Your task to perform on an android device: Search for the best selling coffee table on Crate & Barrel Image 0: 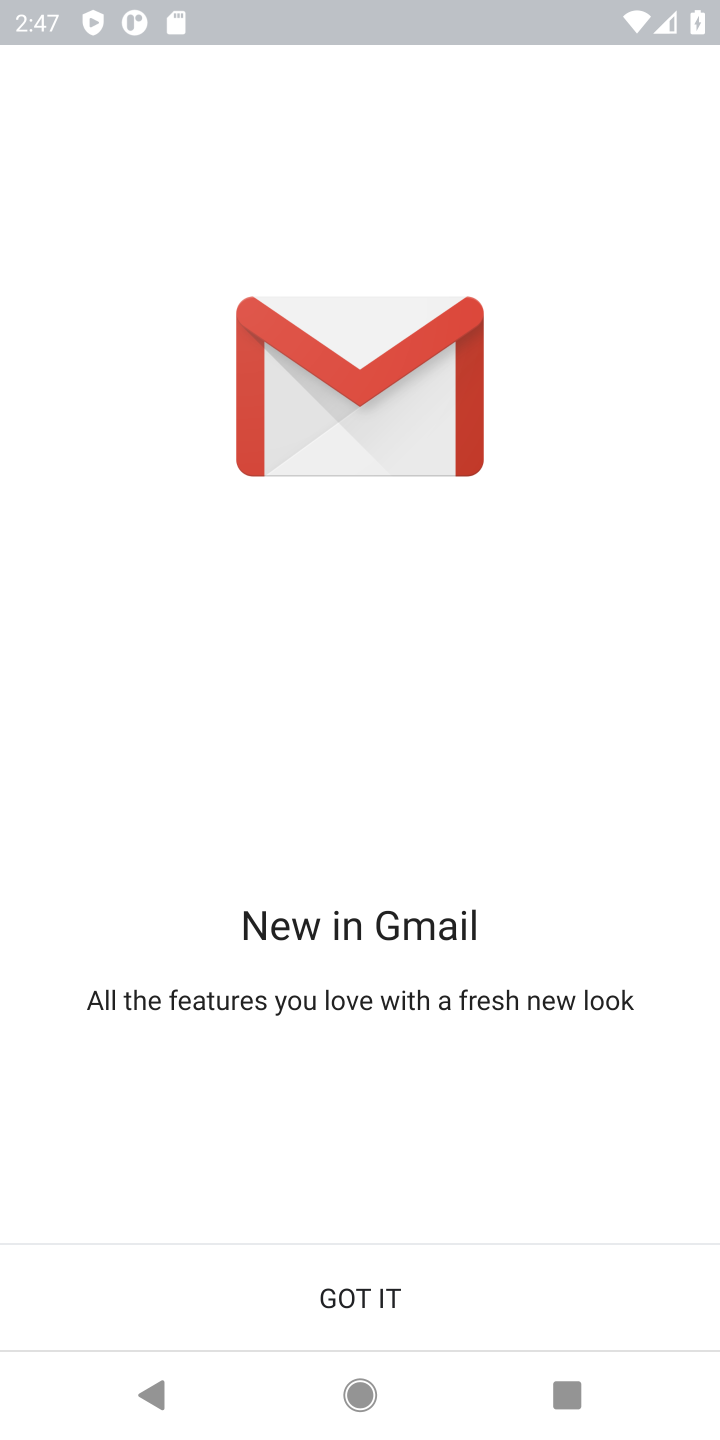
Step 0: press home button
Your task to perform on an android device: Search for the best selling coffee table on Crate & Barrel Image 1: 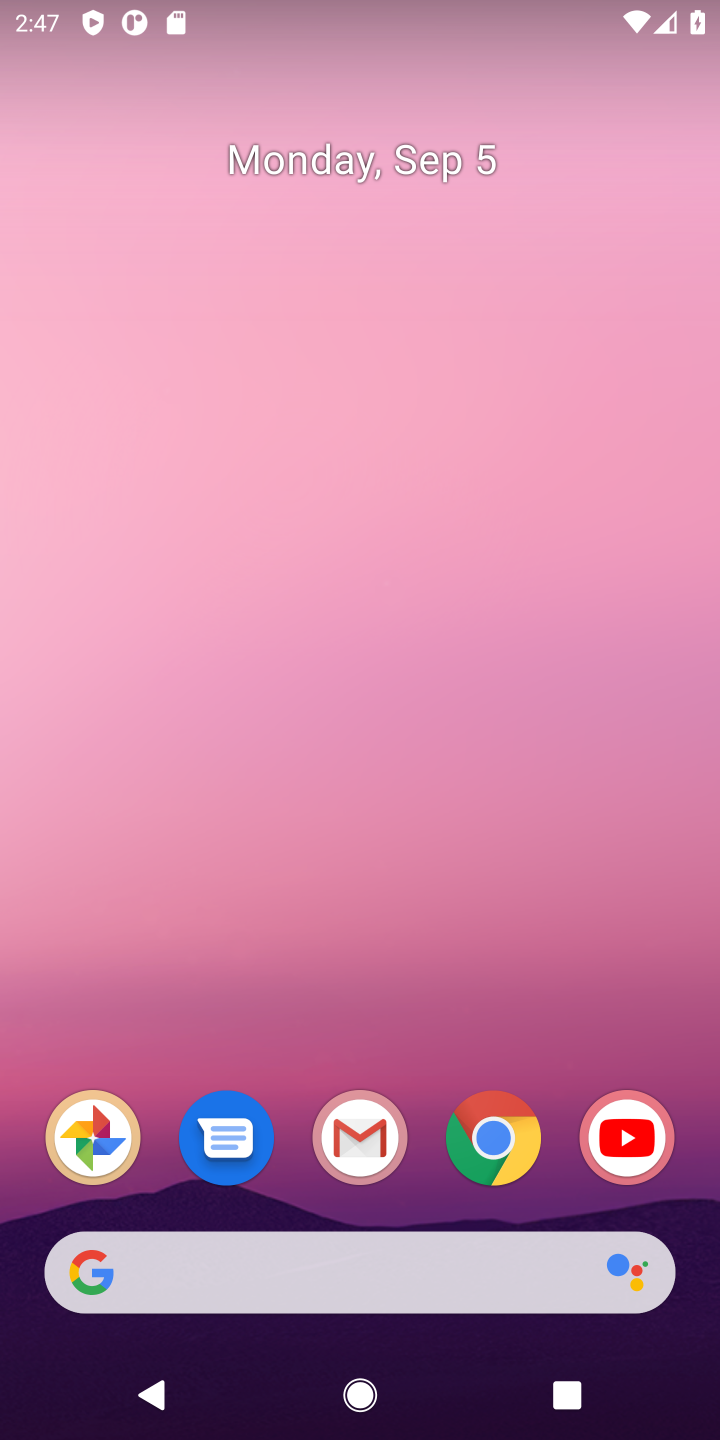
Step 1: click (515, 1144)
Your task to perform on an android device: Search for the best selling coffee table on Crate & Barrel Image 2: 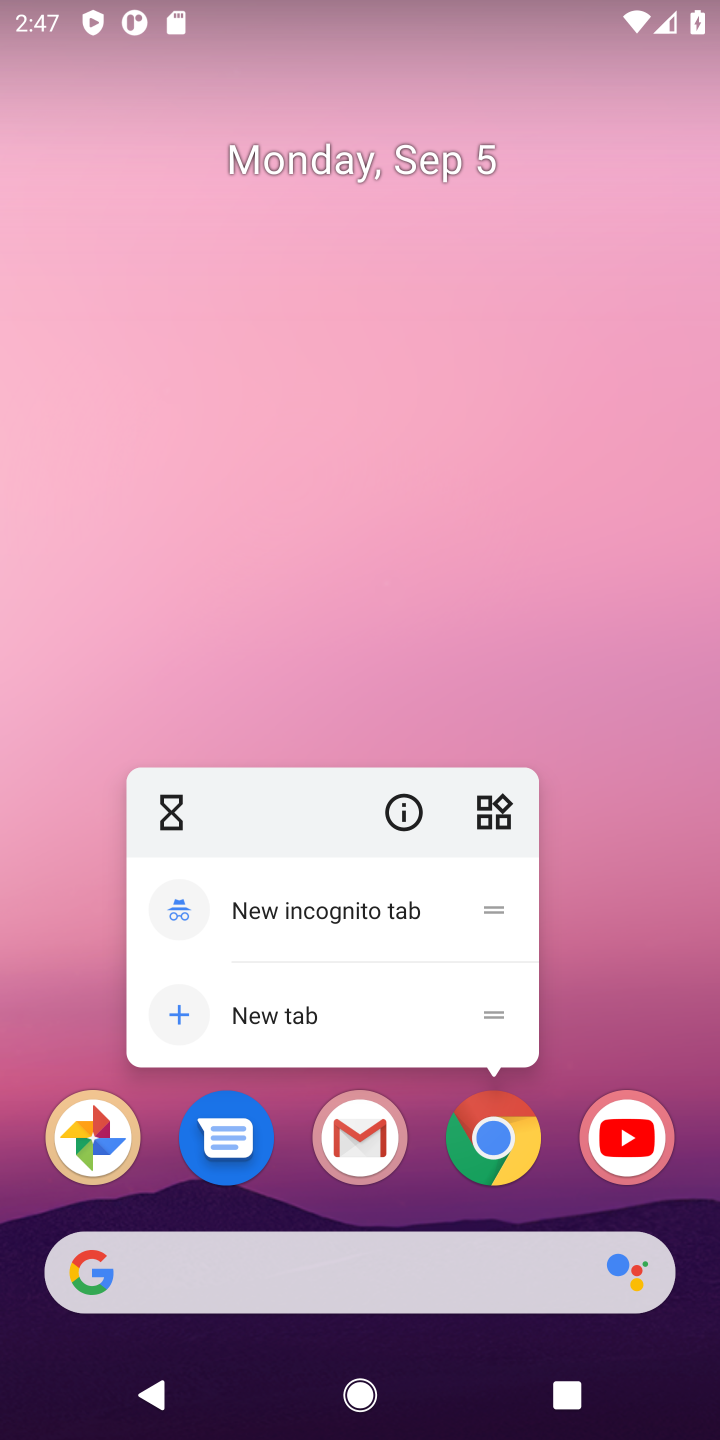
Step 2: click (503, 1149)
Your task to perform on an android device: Search for the best selling coffee table on Crate & Barrel Image 3: 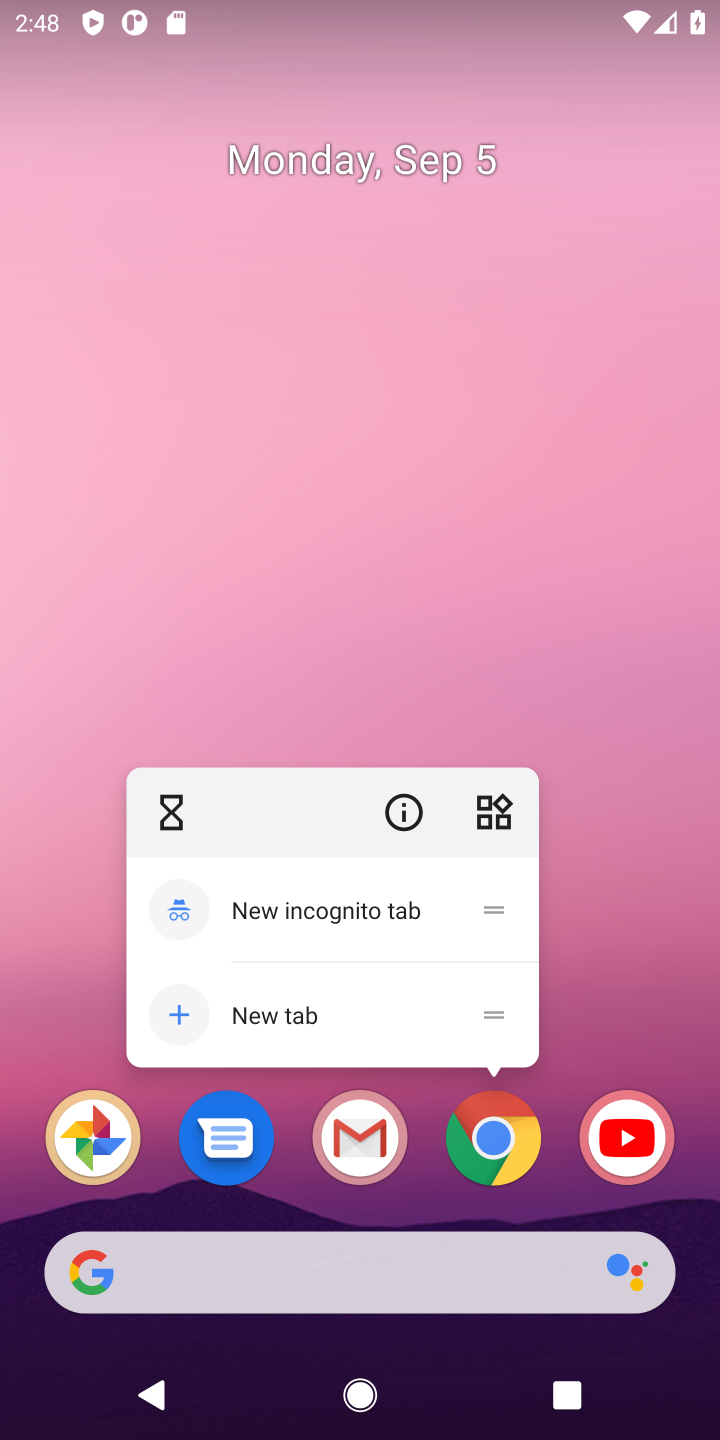
Step 3: click (490, 1151)
Your task to perform on an android device: Search for the best selling coffee table on Crate & Barrel Image 4: 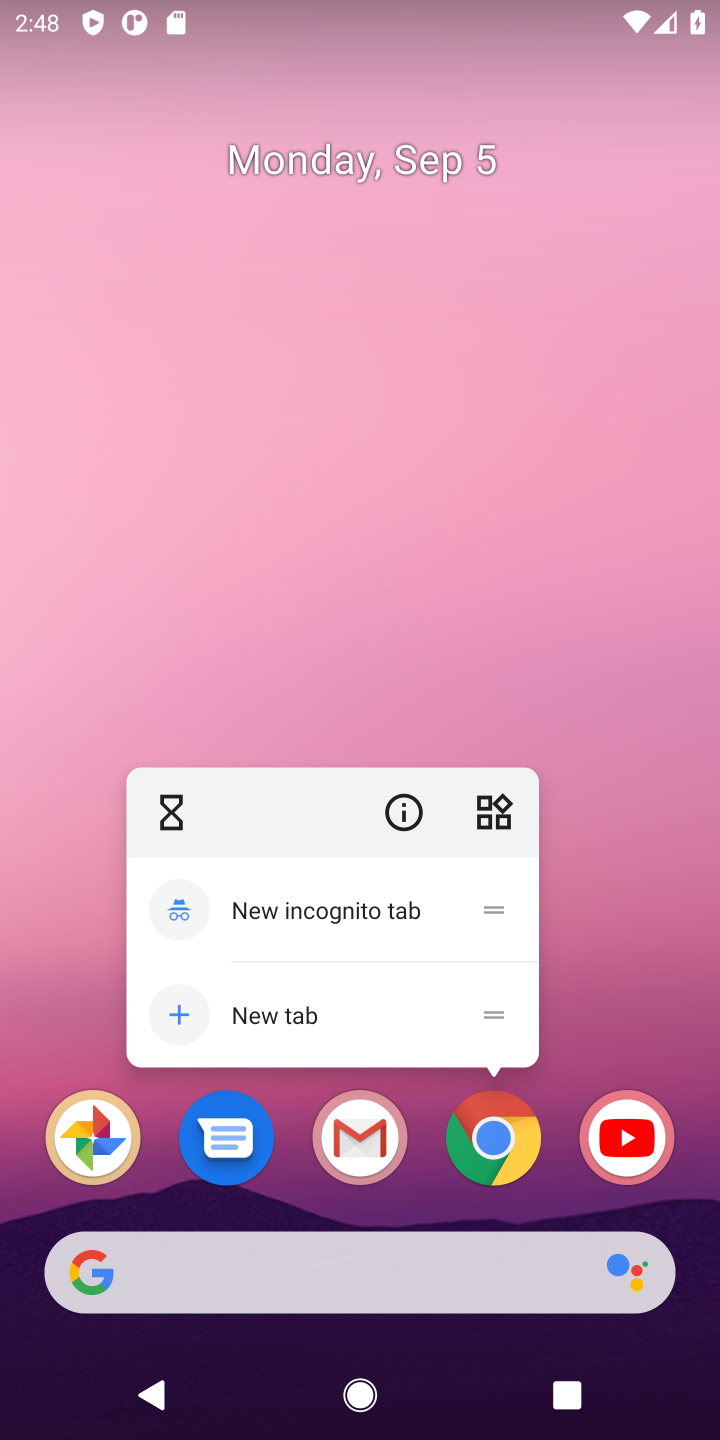
Step 4: click (488, 1147)
Your task to perform on an android device: Search for the best selling coffee table on Crate & Barrel Image 5: 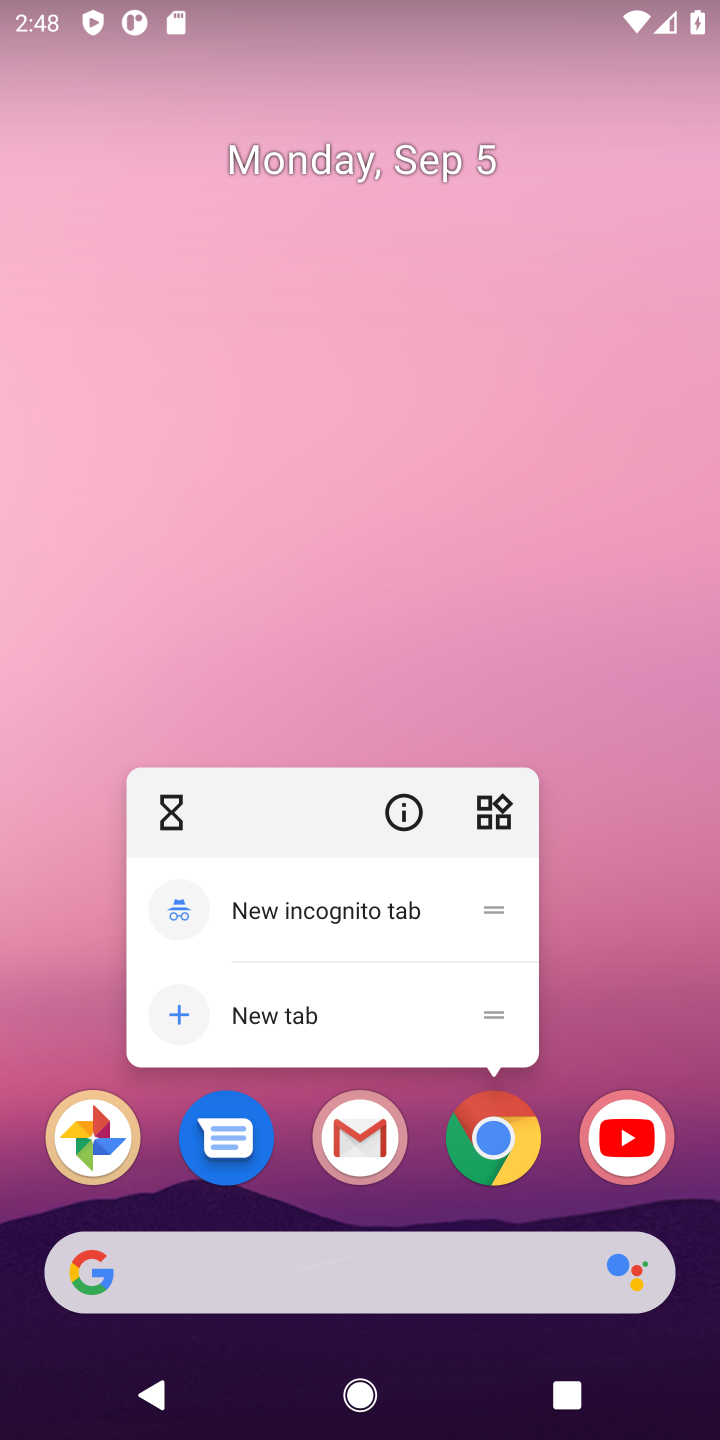
Step 5: click (488, 1147)
Your task to perform on an android device: Search for the best selling coffee table on Crate & Barrel Image 6: 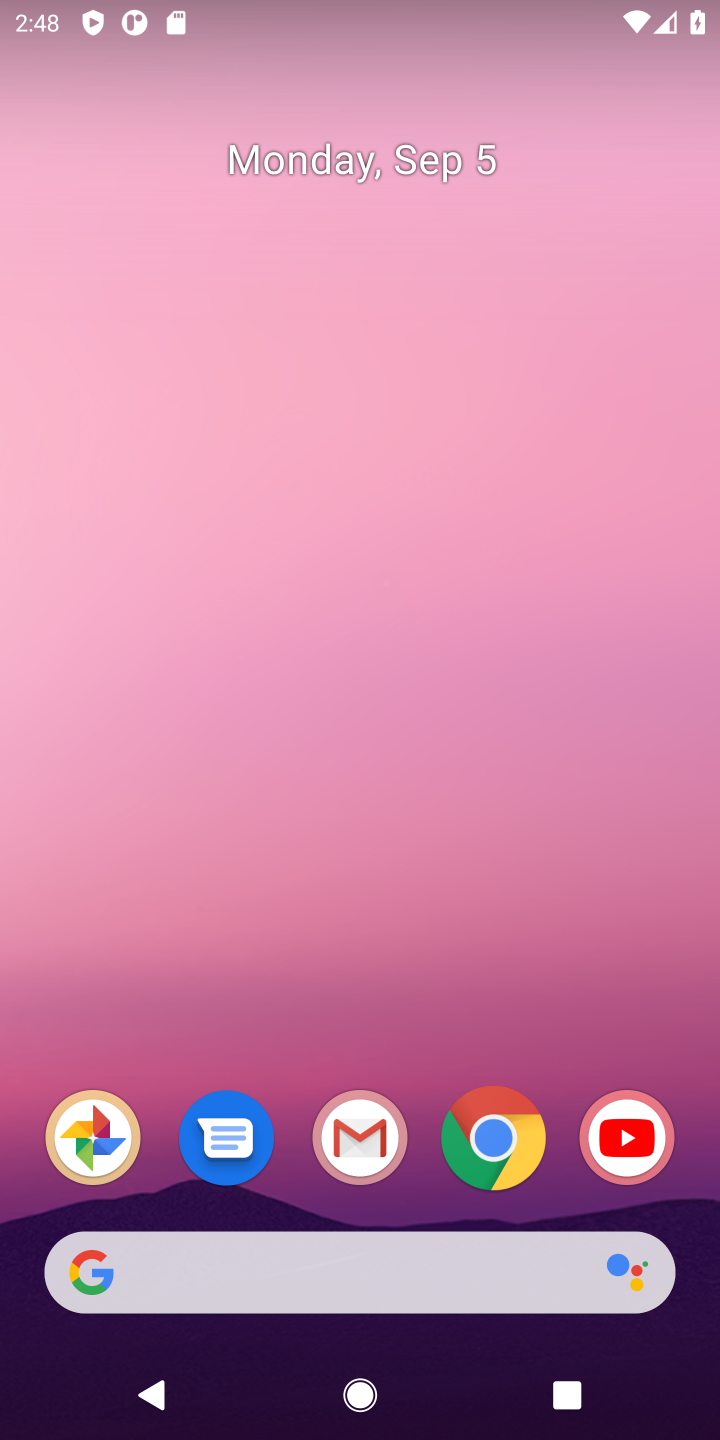
Step 6: click (492, 1135)
Your task to perform on an android device: Search for the best selling coffee table on Crate & Barrel Image 7: 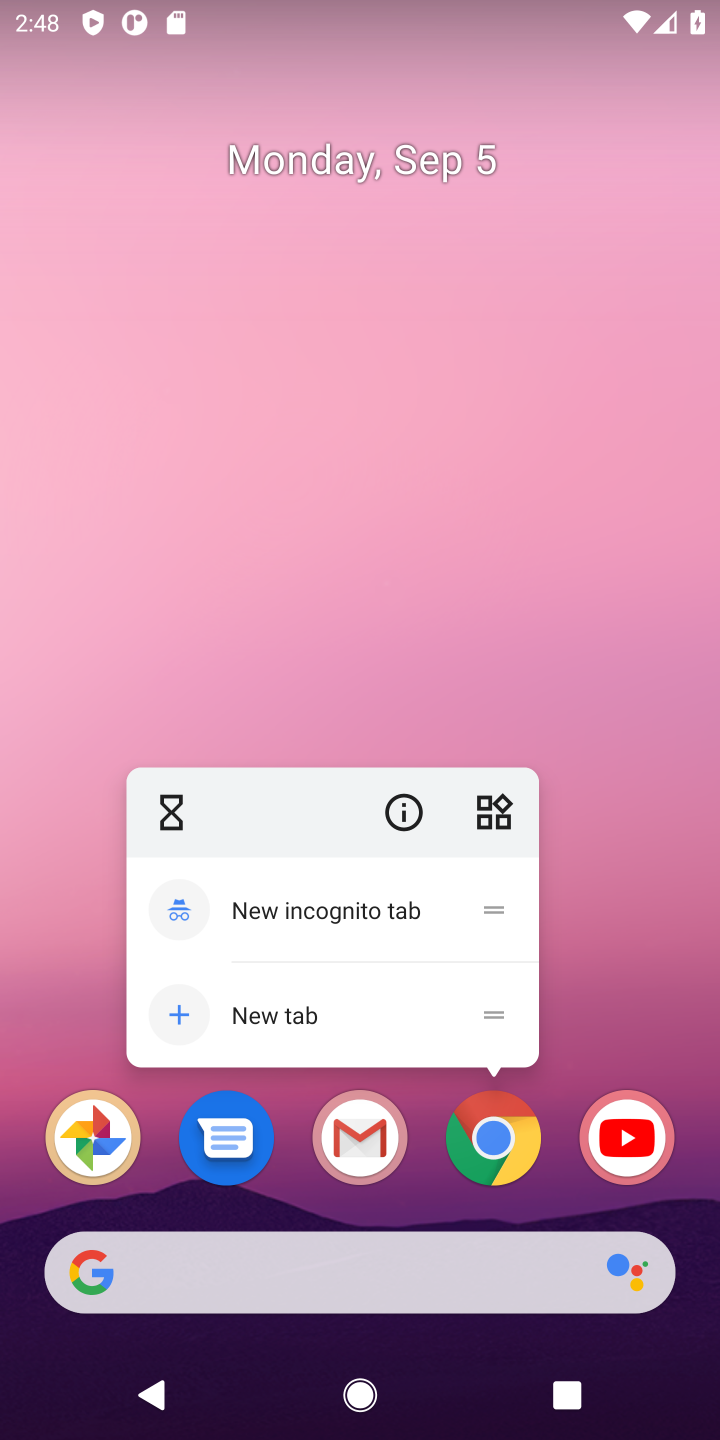
Step 7: click (503, 1150)
Your task to perform on an android device: Search for the best selling coffee table on Crate & Barrel Image 8: 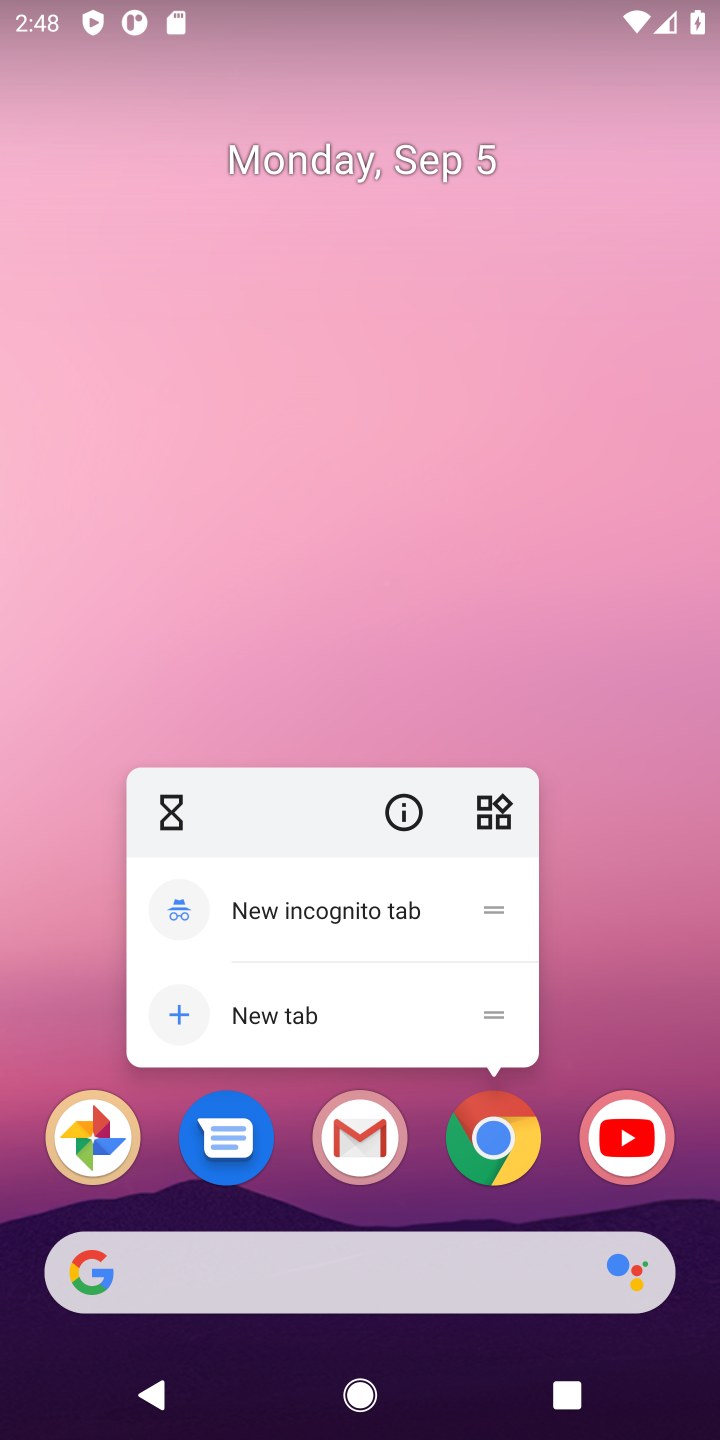
Step 8: click (506, 1143)
Your task to perform on an android device: Search for the best selling coffee table on Crate & Barrel Image 9: 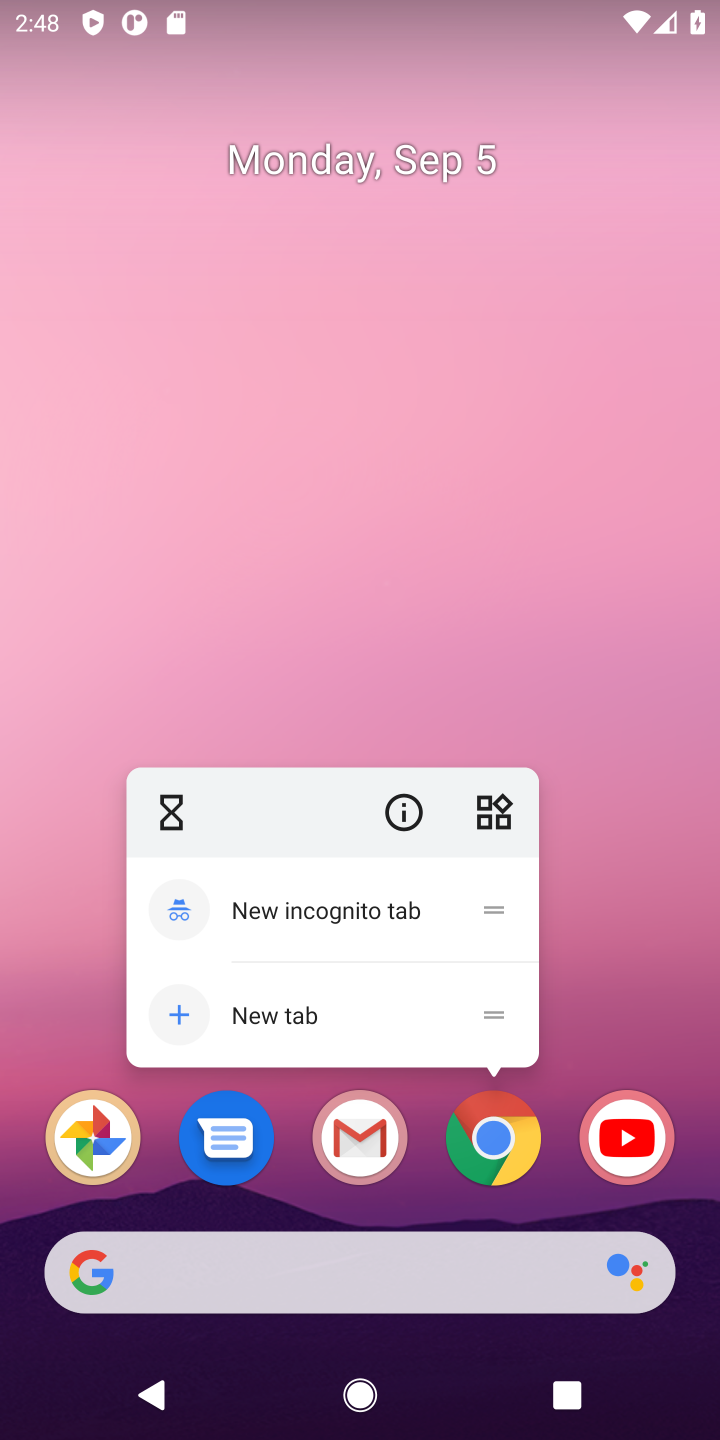
Step 9: click (508, 1147)
Your task to perform on an android device: Search for the best selling coffee table on Crate & Barrel Image 10: 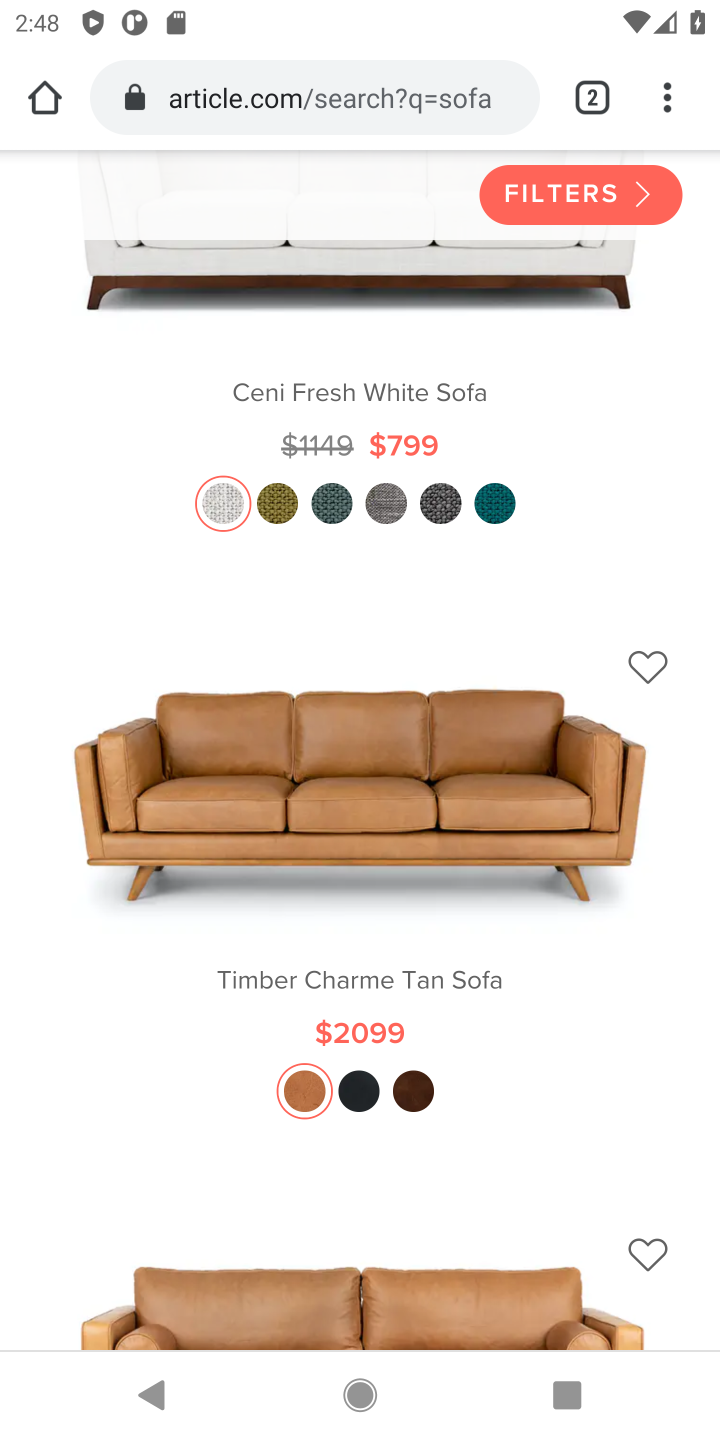
Step 10: click (380, 95)
Your task to perform on an android device: Search for the best selling coffee table on Crate & Barrel Image 11: 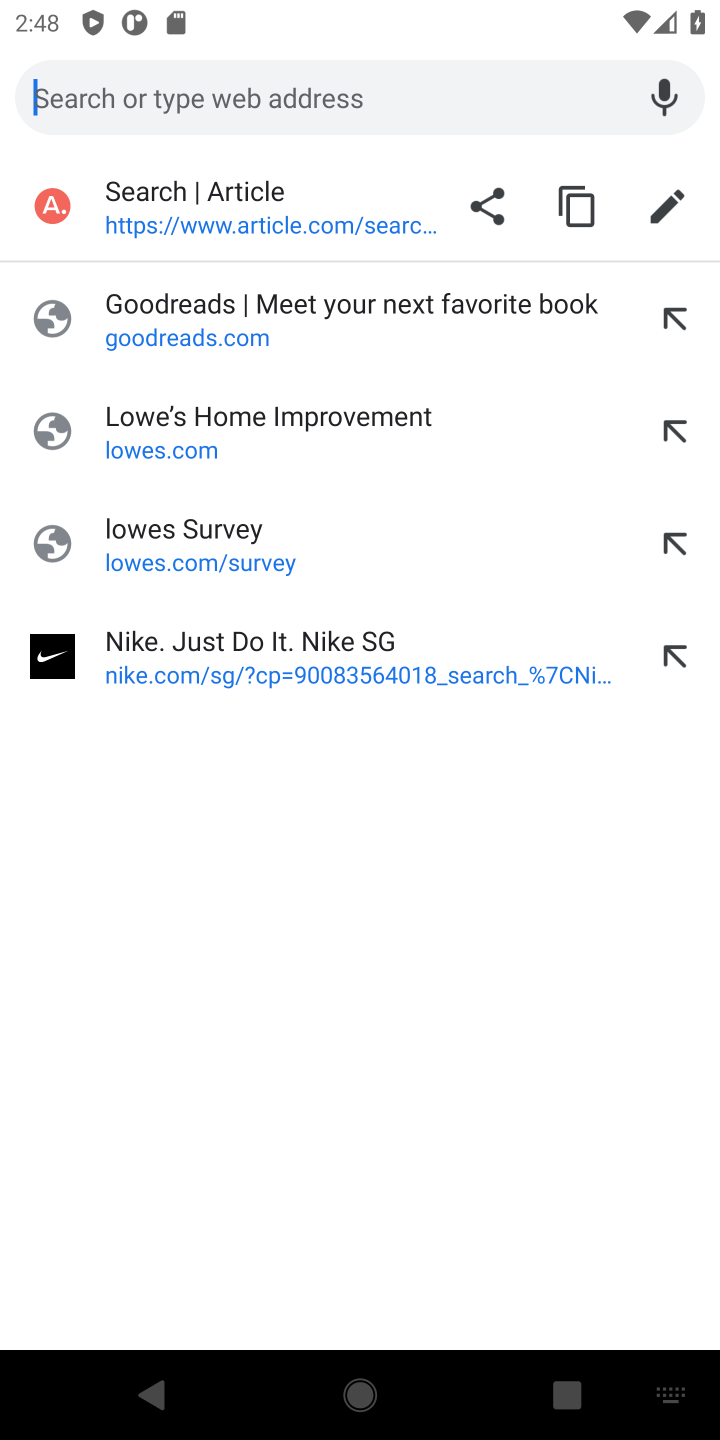
Step 11: type "crate & barrel"
Your task to perform on an android device: Search for the best selling coffee table on Crate & Barrel Image 12: 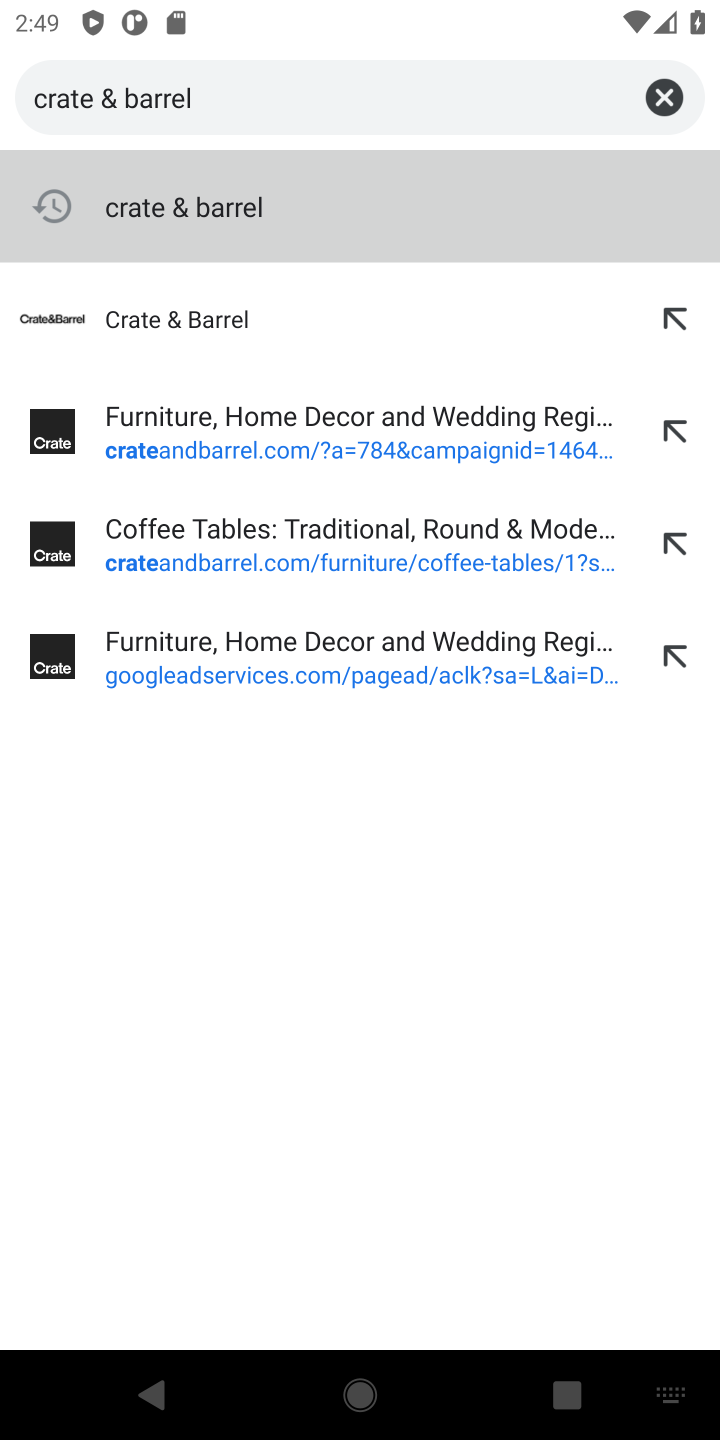
Step 12: type ""
Your task to perform on an android device: Search for the best selling coffee table on Crate & Barrel Image 13: 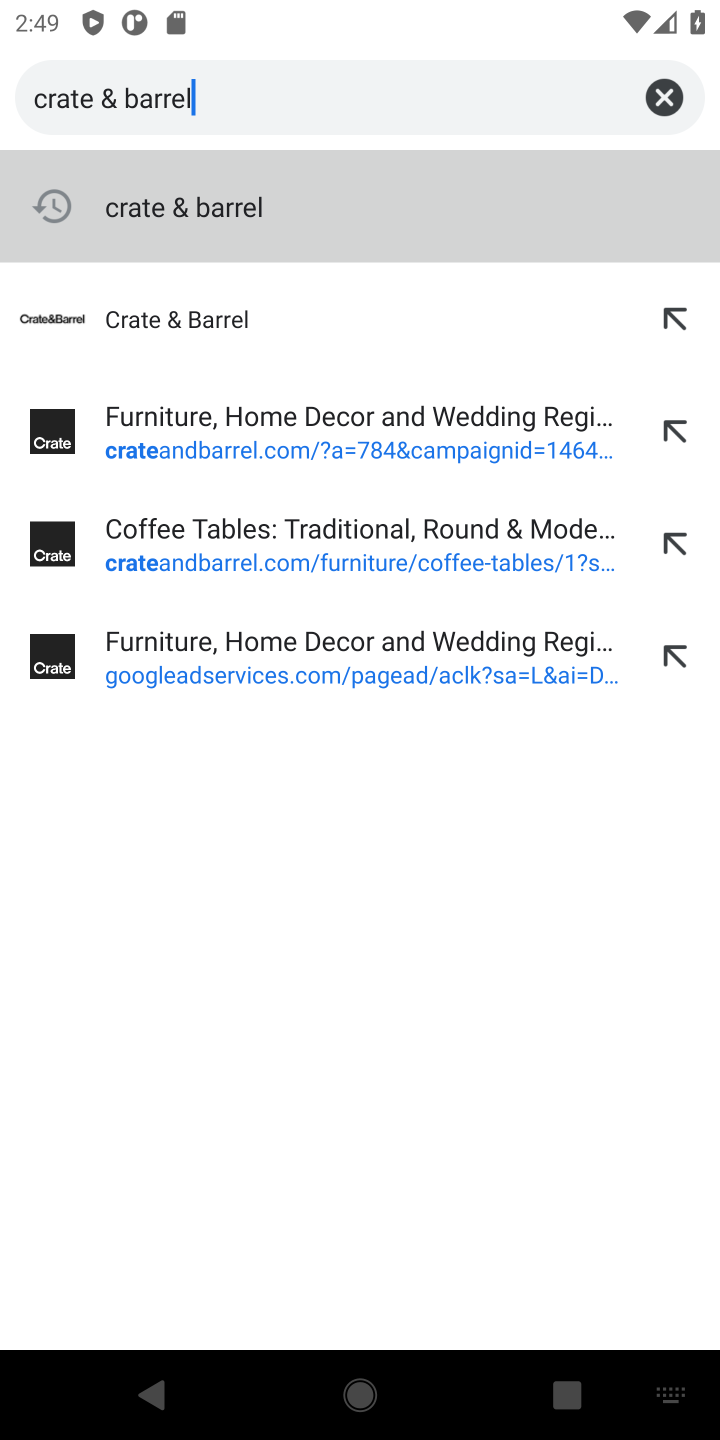
Step 13: click (180, 330)
Your task to perform on an android device: Search for the best selling coffee table on Crate & Barrel Image 14: 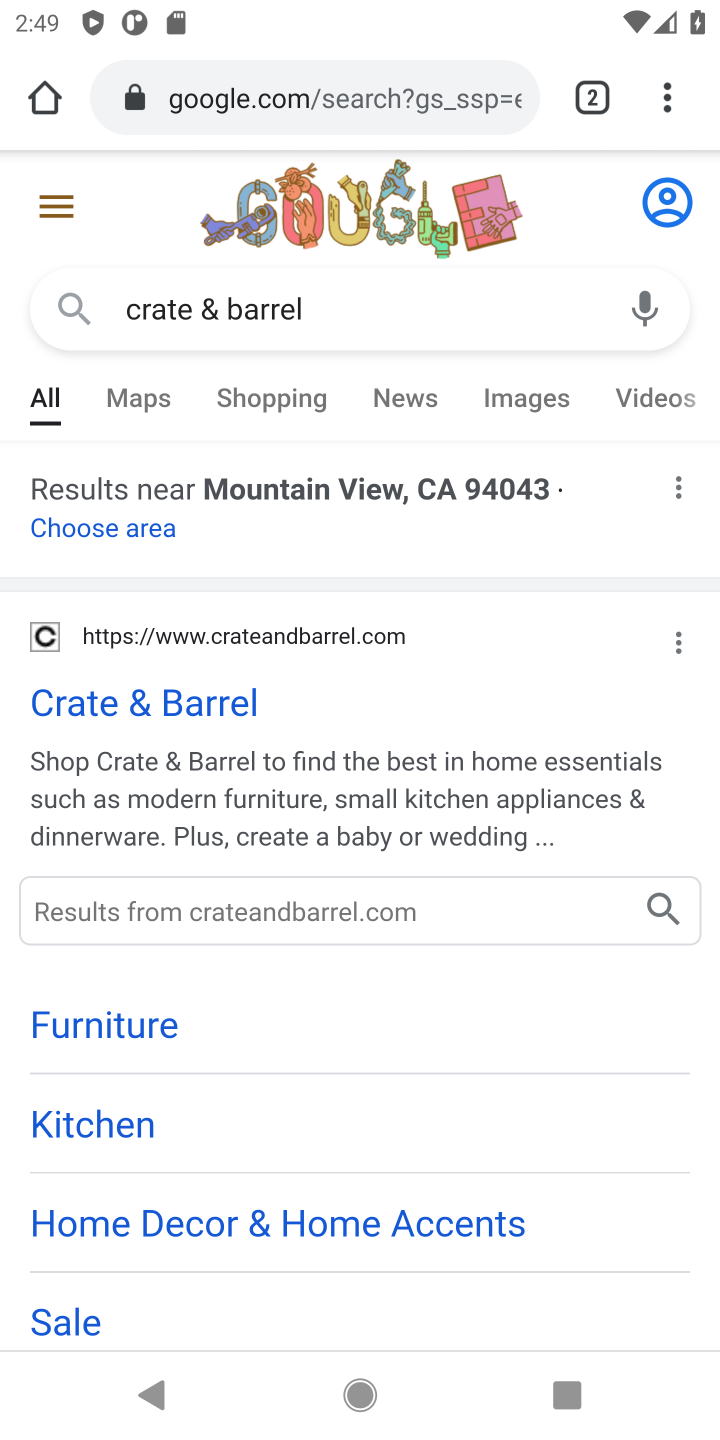
Step 14: drag from (666, 1099) to (679, 619)
Your task to perform on an android device: Search for the best selling coffee table on Crate & Barrel Image 15: 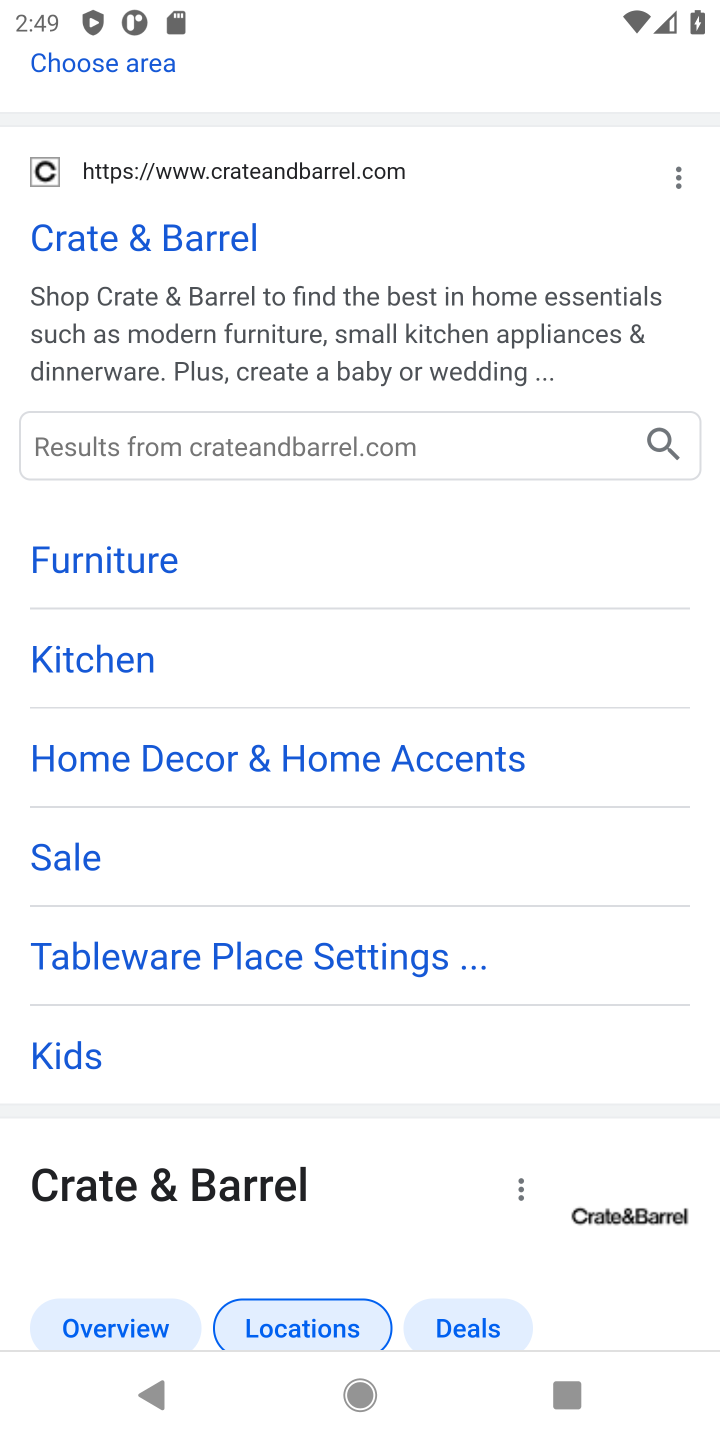
Step 15: drag from (654, 704) to (685, 413)
Your task to perform on an android device: Search for the best selling coffee table on Crate & Barrel Image 16: 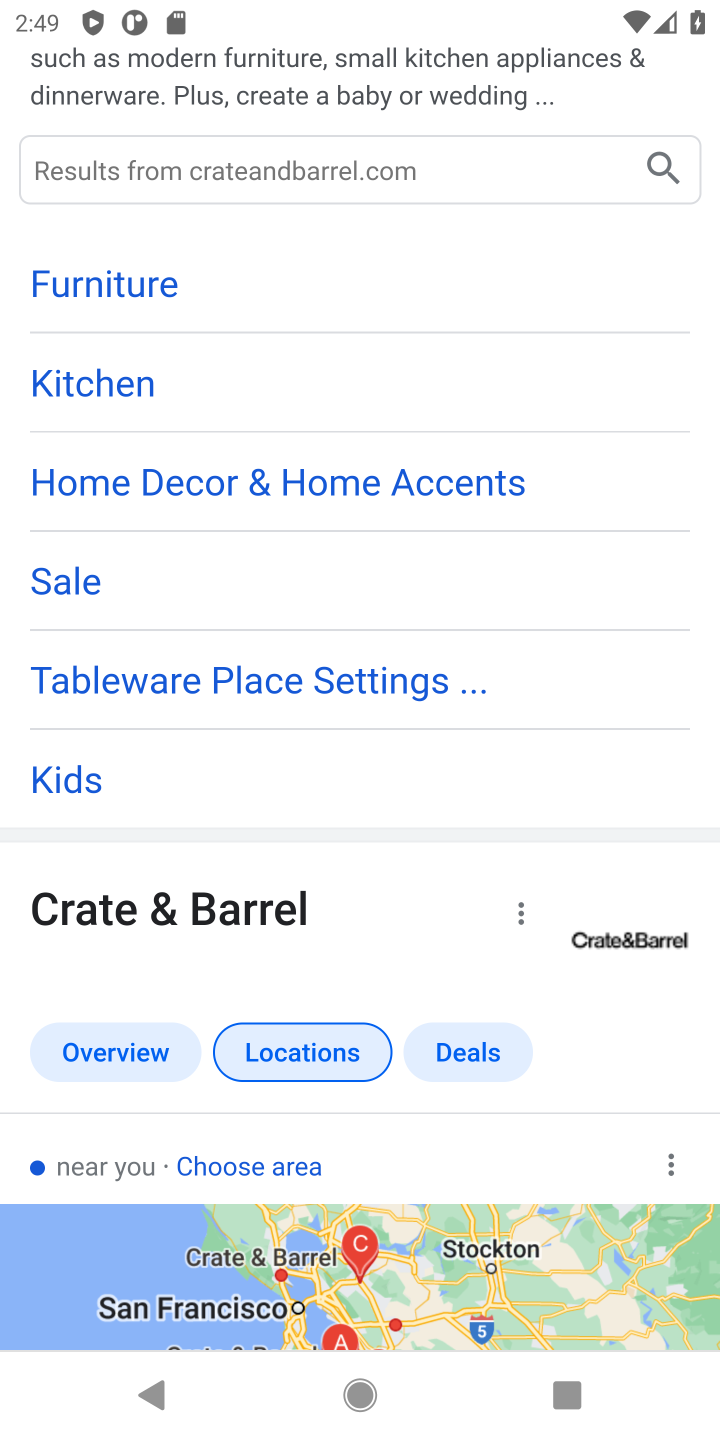
Step 16: click (596, 249)
Your task to perform on an android device: Search for the best selling coffee table on Crate & Barrel Image 17: 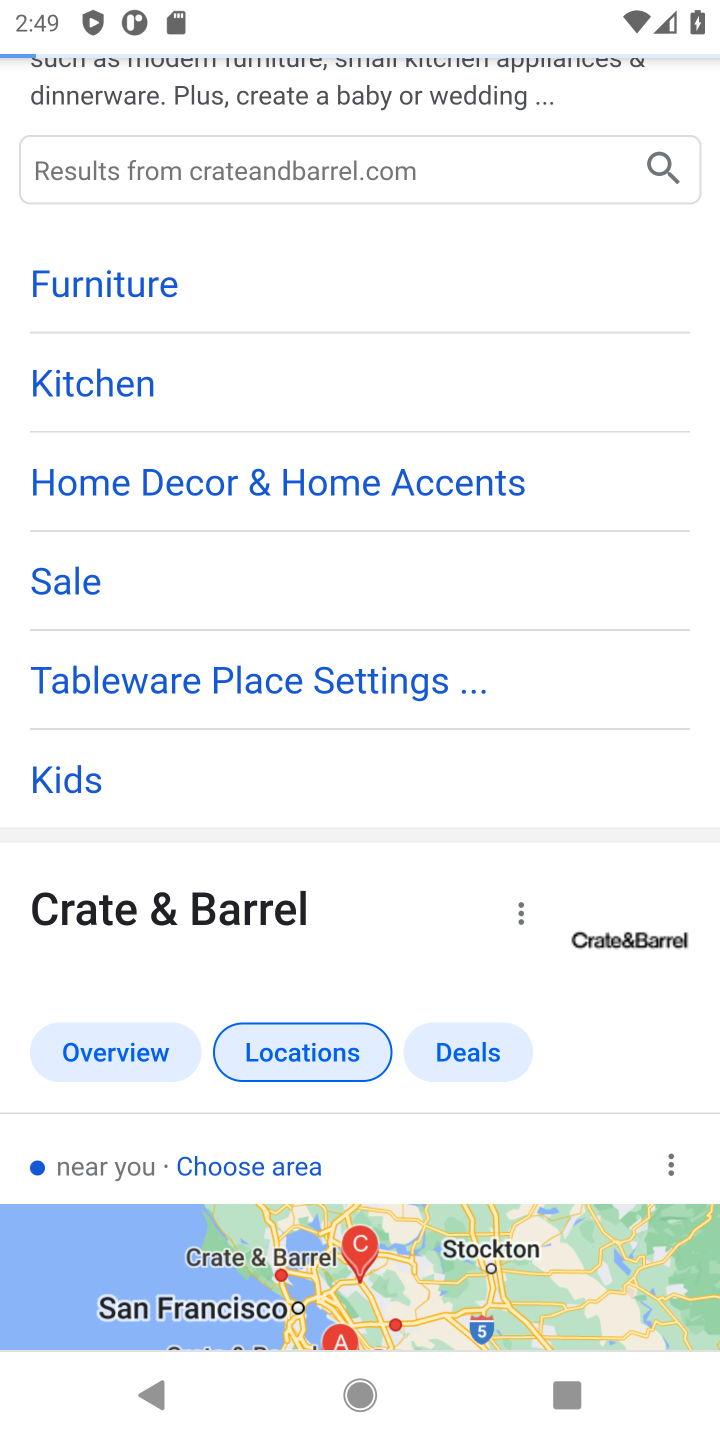
Step 17: drag from (493, 1137) to (166, 296)
Your task to perform on an android device: Search for the best selling coffee table on Crate & Barrel Image 18: 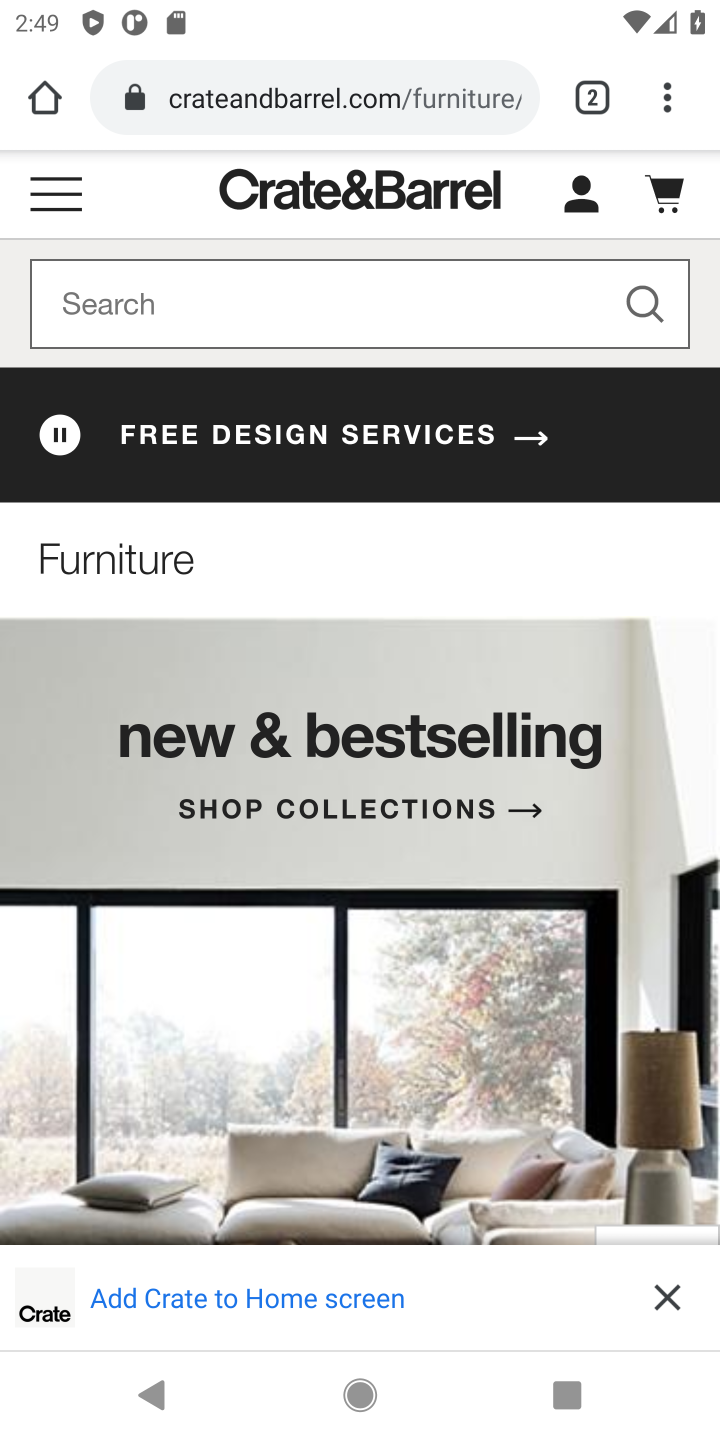
Step 18: click (234, 293)
Your task to perform on an android device: Search for the best selling coffee table on Crate & Barrel Image 19: 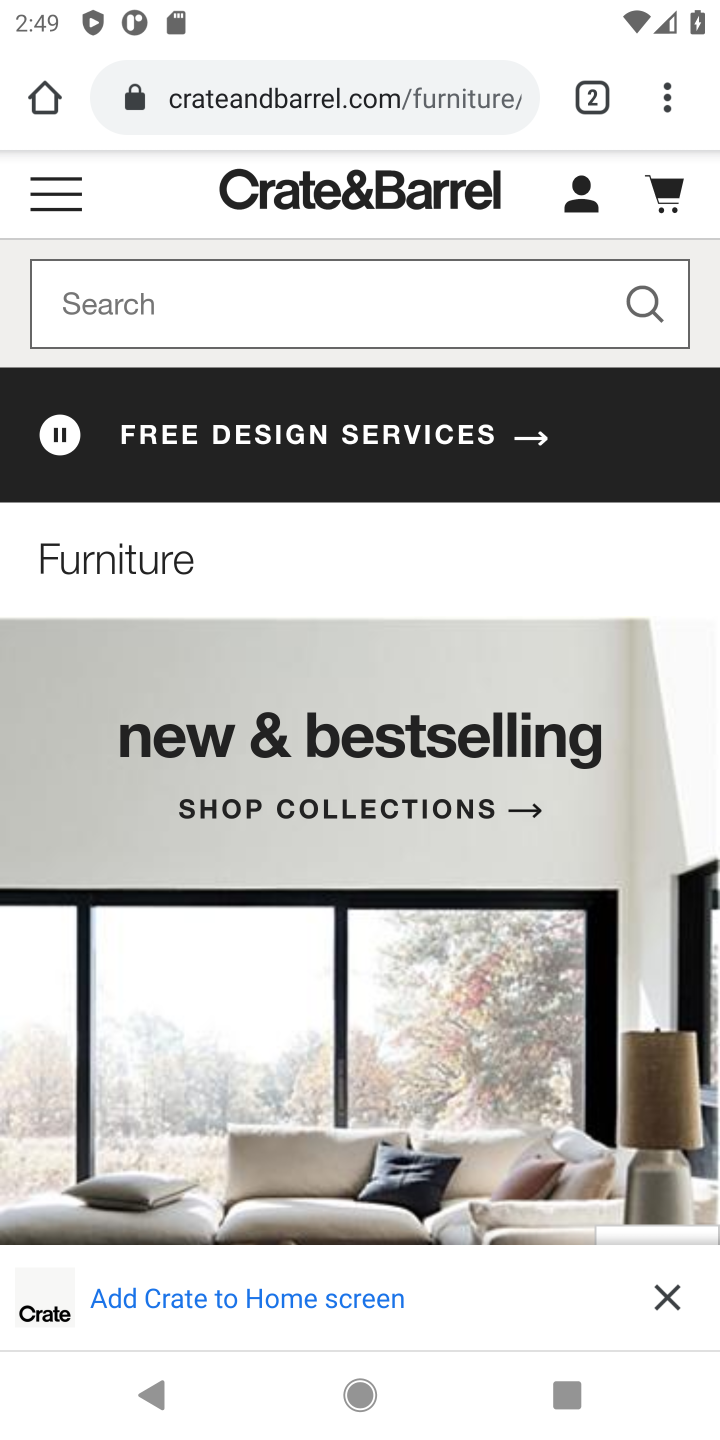
Step 19: click (218, 298)
Your task to perform on an android device: Search for the best selling coffee table on Crate & Barrel Image 20: 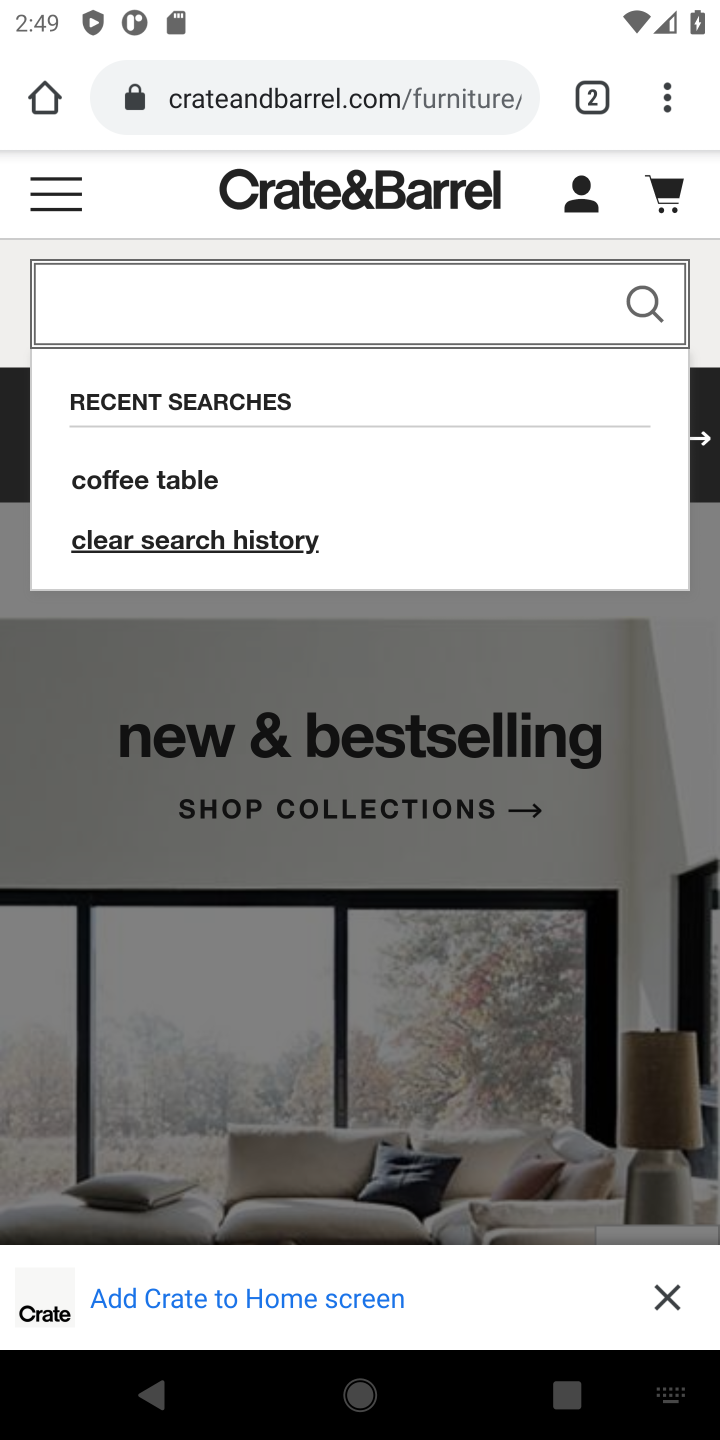
Step 20: type "coffee table"
Your task to perform on an android device: Search for the best selling coffee table on Crate & Barrel Image 21: 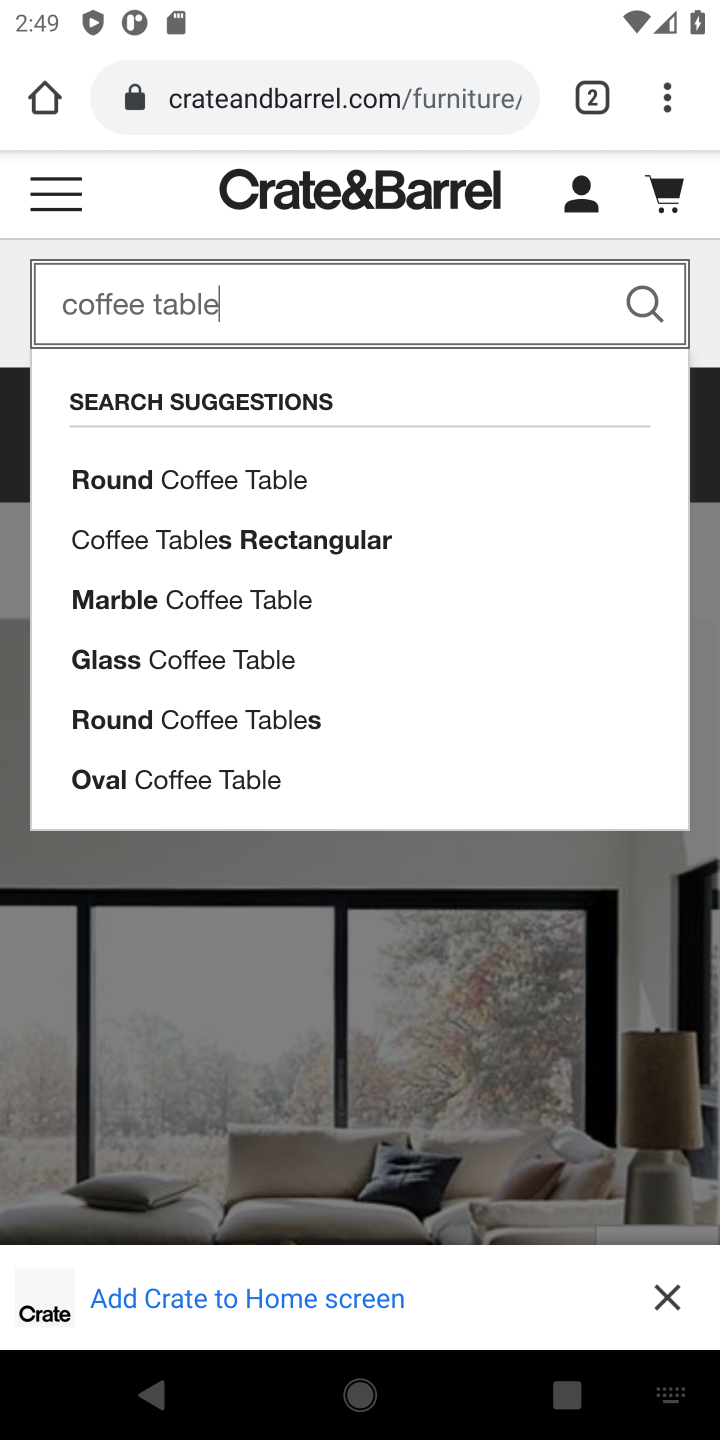
Step 21: click (184, 553)
Your task to perform on an android device: Search for the best selling coffee table on Crate & Barrel Image 22: 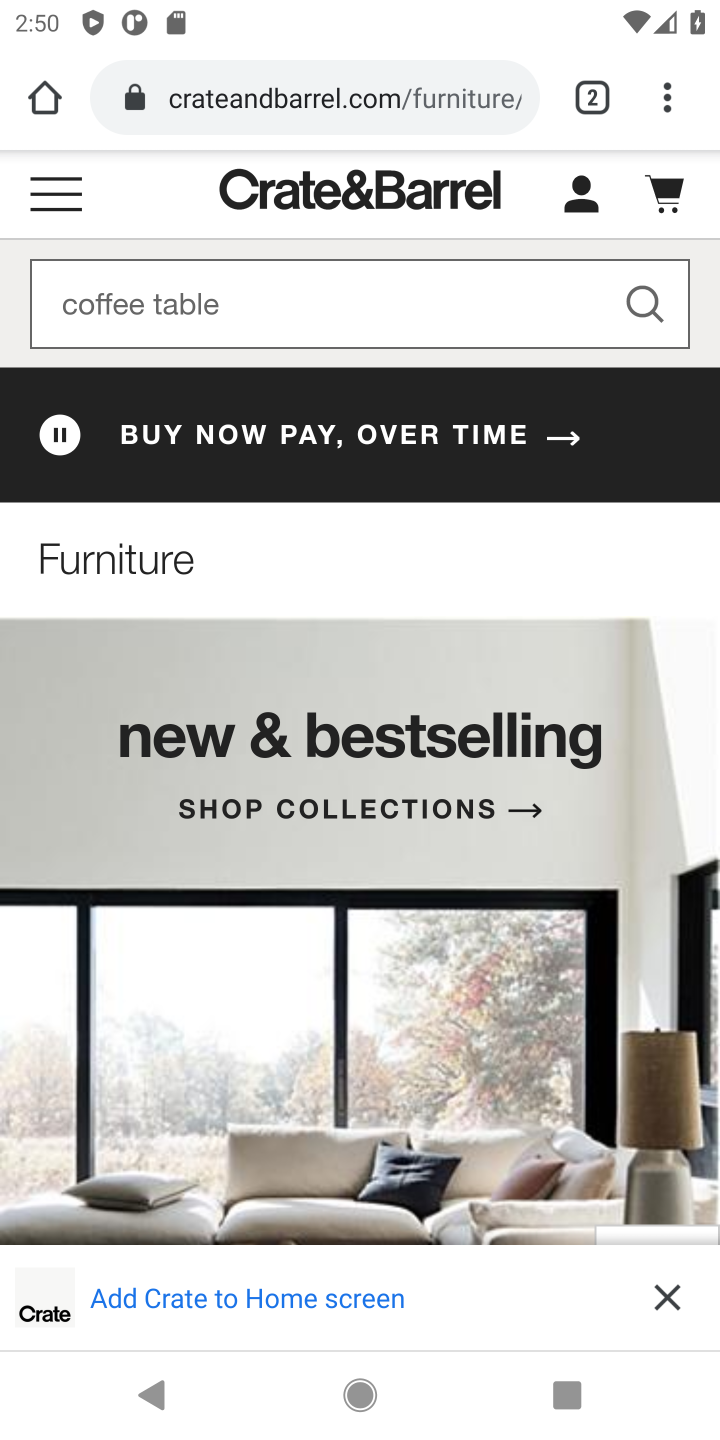
Step 22: task complete